Your task to perform on an android device: Go to privacy settings Image 0: 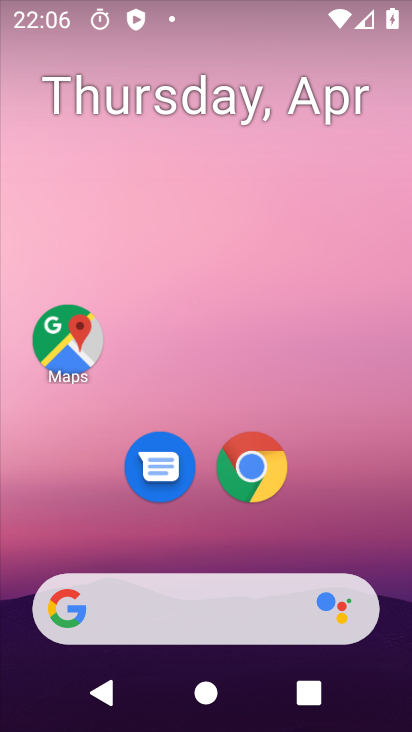
Step 0: drag from (223, 560) to (244, 6)
Your task to perform on an android device: Go to privacy settings Image 1: 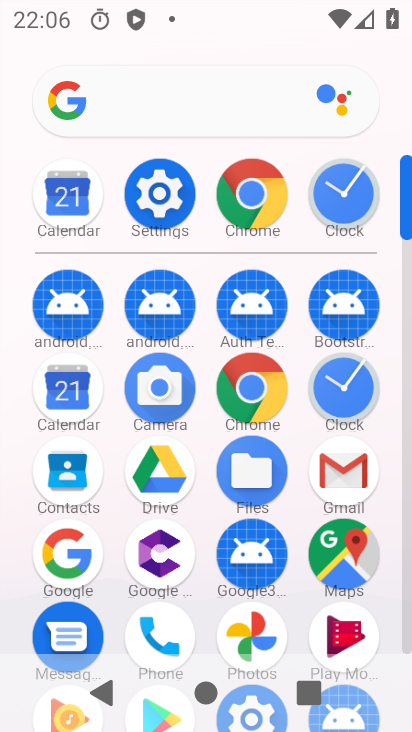
Step 1: click (173, 208)
Your task to perform on an android device: Go to privacy settings Image 2: 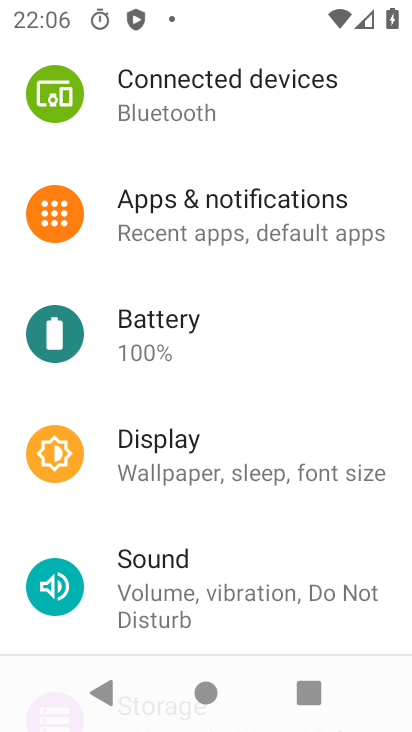
Step 2: drag from (202, 522) to (184, 108)
Your task to perform on an android device: Go to privacy settings Image 3: 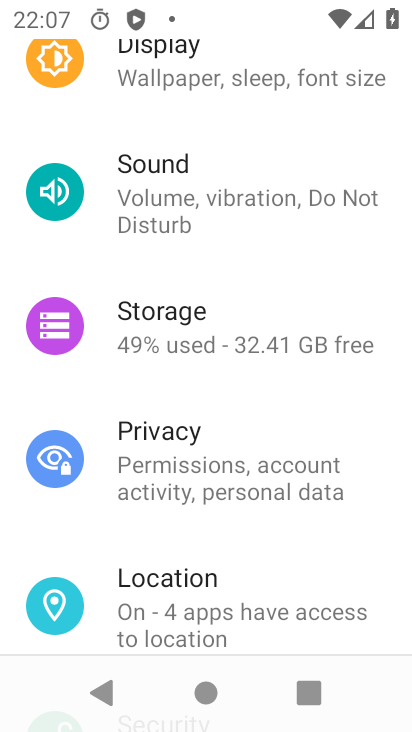
Step 3: click (210, 483)
Your task to perform on an android device: Go to privacy settings Image 4: 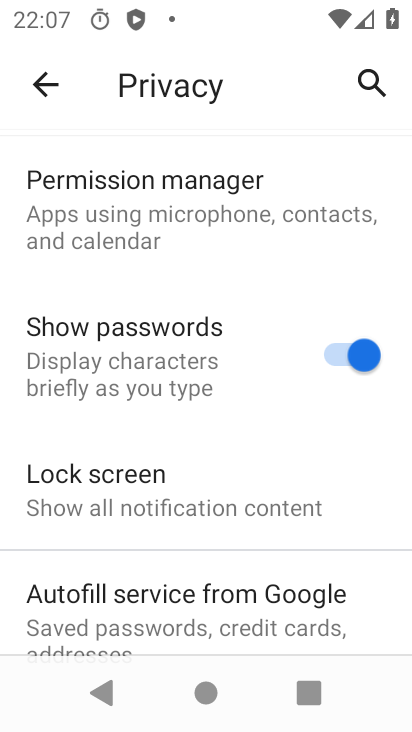
Step 4: task complete